Your task to perform on an android device: toggle priority inbox in the gmail app Image 0: 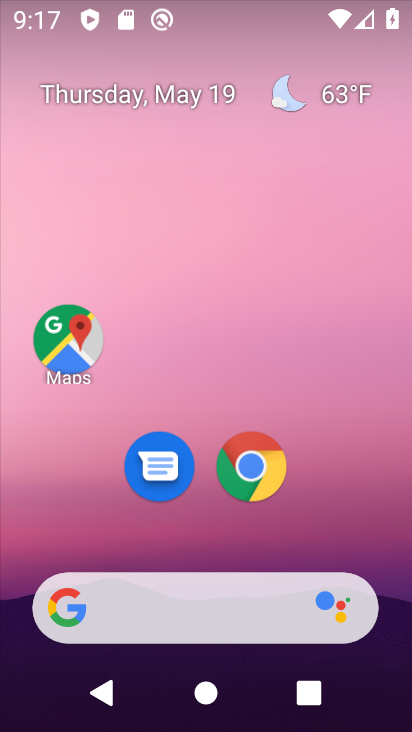
Step 0: drag from (381, 616) to (316, 18)
Your task to perform on an android device: toggle priority inbox in the gmail app Image 1: 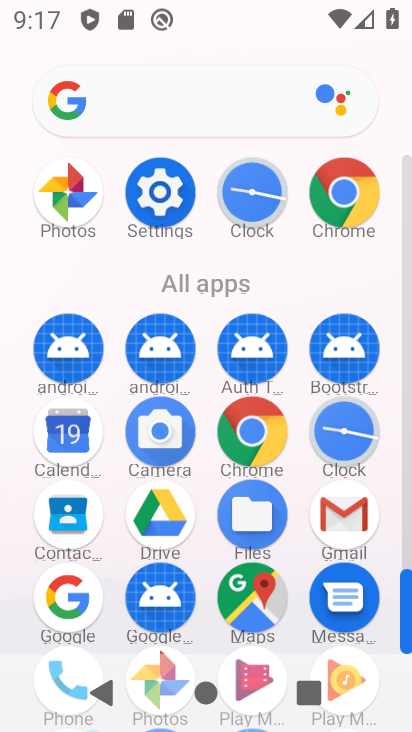
Step 1: click (346, 519)
Your task to perform on an android device: toggle priority inbox in the gmail app Image 2: 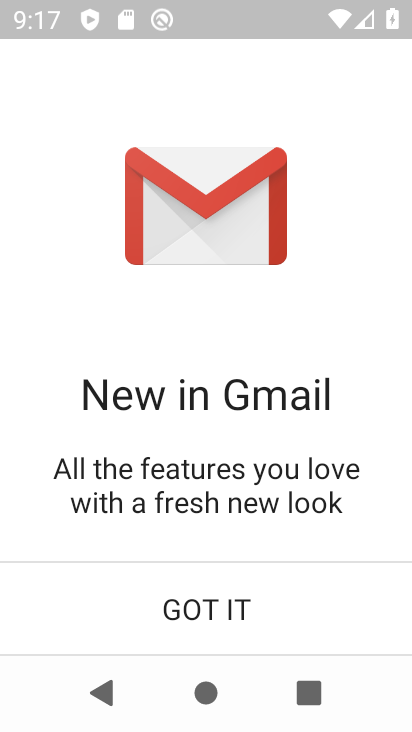
Step 2: click (258, 584)
Your task to perform on an android device: toggle priority inbox in the gmail app Image 3: 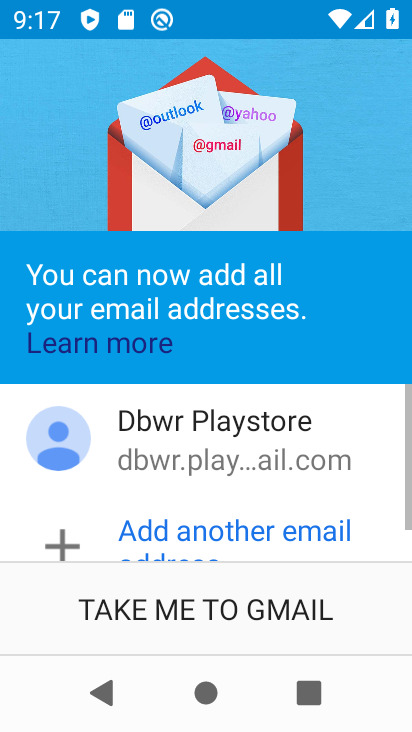
Step 3: click (211, 622)
Your task to perform on an android device: toggle priority inbox in the gmail app Image 4: 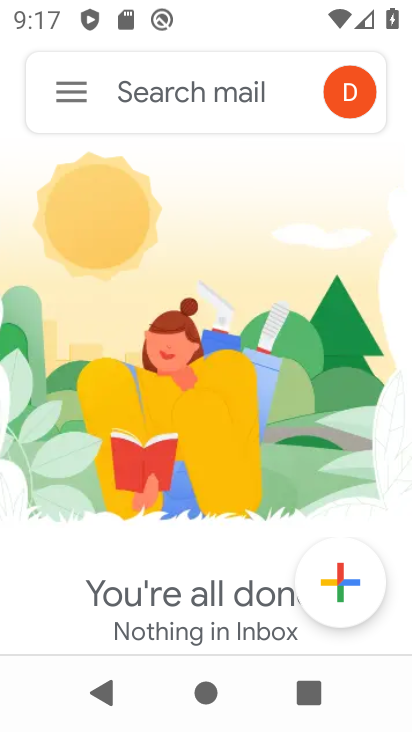
Step 4: click (79, 107)
Your task to perform on an android device: toggle priority inbox in the gmail app Image 5: 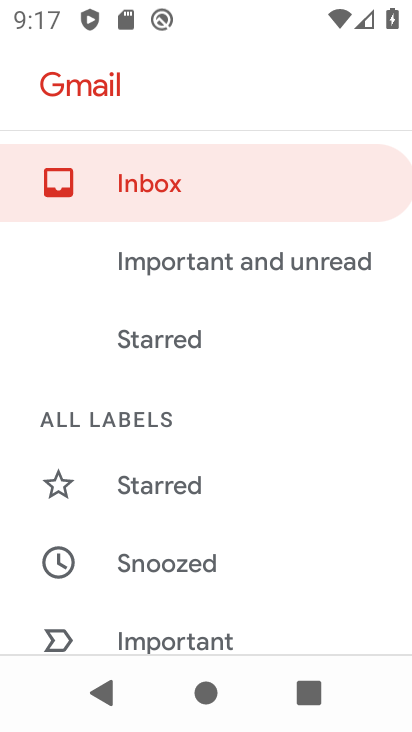
Step 5: drag from (109, 618) to (196, 97)
Your task to perform on an android device: toggle priority inbox in the gmail app Image 6: 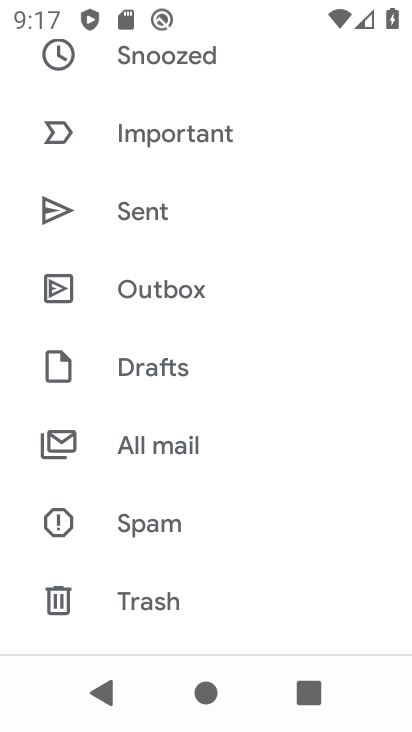
Step 6: drag from (84, 605) to (184, 82)
Your task to perform on an android device: toggle priority inbox in the gmail app Image 7: 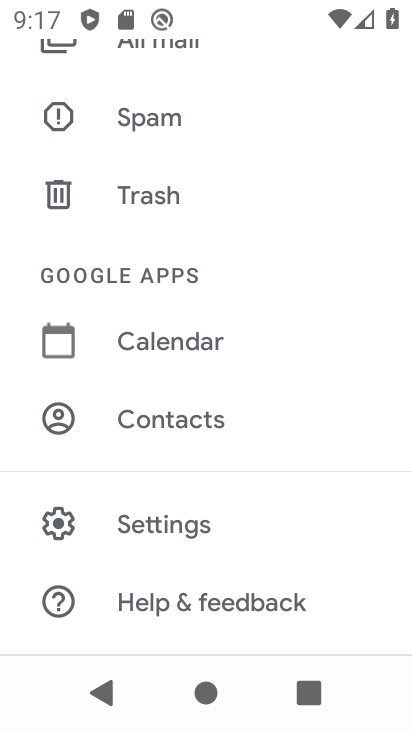
Step 7: click (150, 518)
Your task to perform on an android device: toggle priority inbox in the gmail app Image 8: 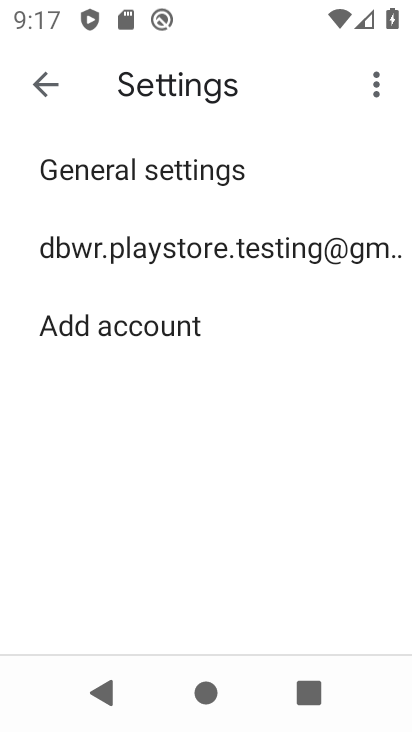
Step 8: click (263, 252)
Your task to perform on an android device: toggle priority inbox in the gmail app Image 9: 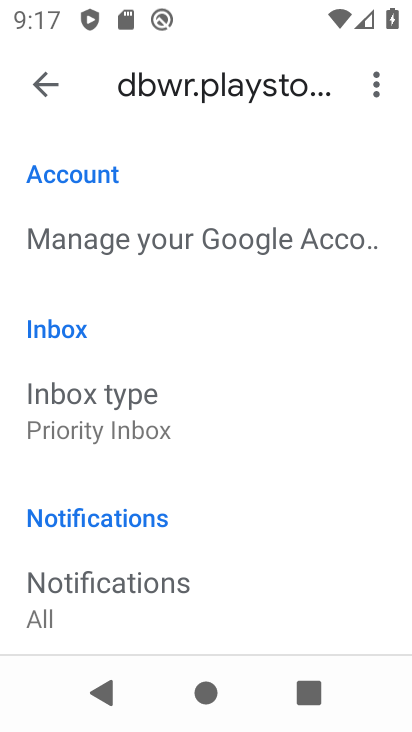
Step 9: click (157, 421)
Your task to perform on an android device: toggle priority inbox in the gmail app Image 10: 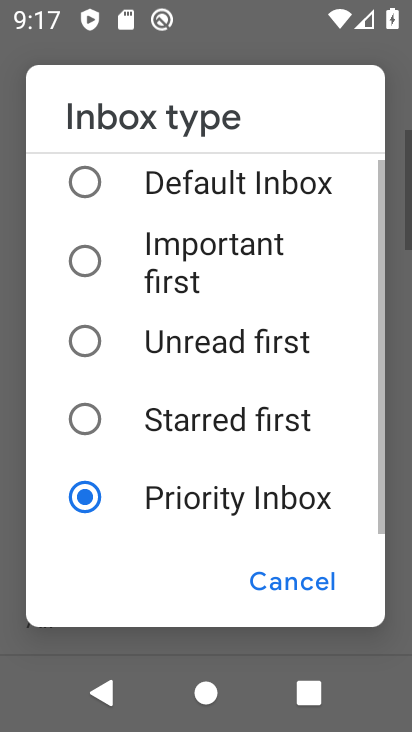
Step 10: click (151, 424)
Your task to perform on an android device: toggle priority inbox in the gmail app Image 11: 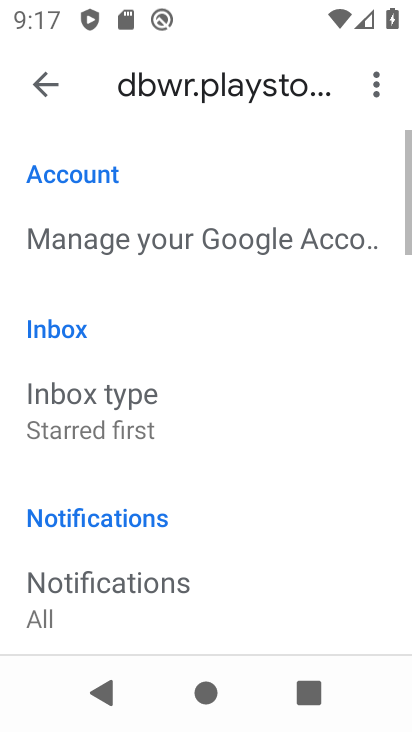
Step 11: task complete